Your task to perform on an android device: turn pop-ups off in chrome Image 0: 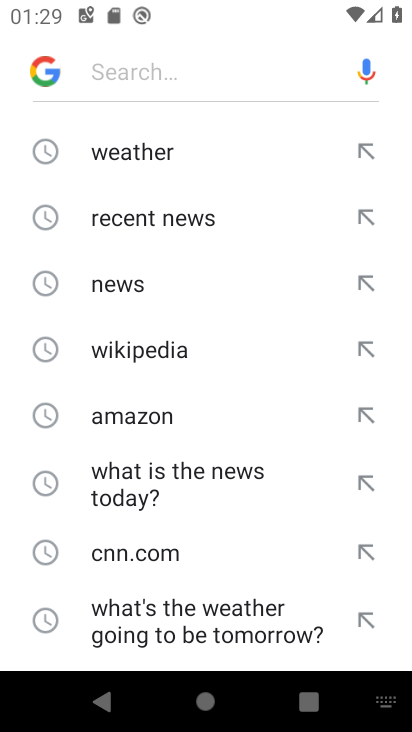
Step 0: press home button
Your task to perform on an android device: turn pop-ups off in chrome Image 1: 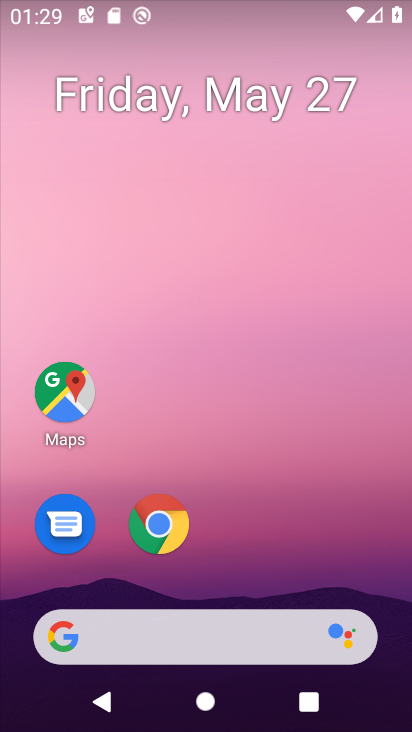
Step 1: click (169, 523)
Your task to perform on an android device: turn pop-ups off in chrome Image 2: 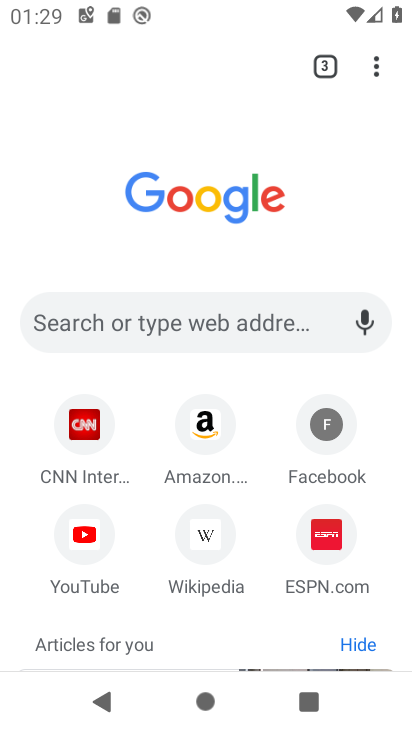
Step 2: click (376, 65)
Your task to perform on an android device: turn pop-ups off in chrome Image 3: 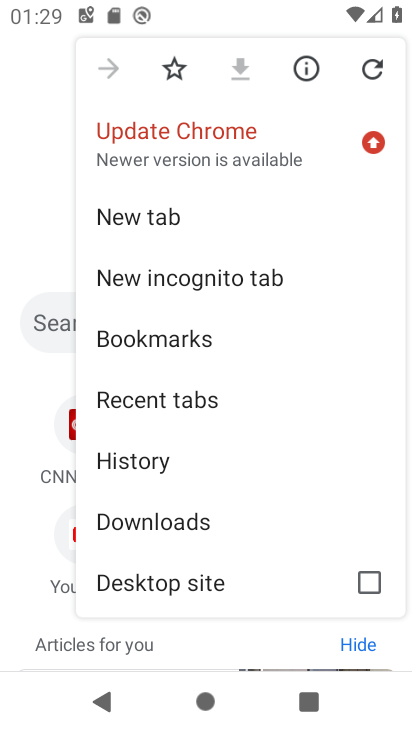
Step 3: drag from (264, 469) to (275, 208)
Your task to perform on an android device: turn pop-ups off in chrome Image 4: 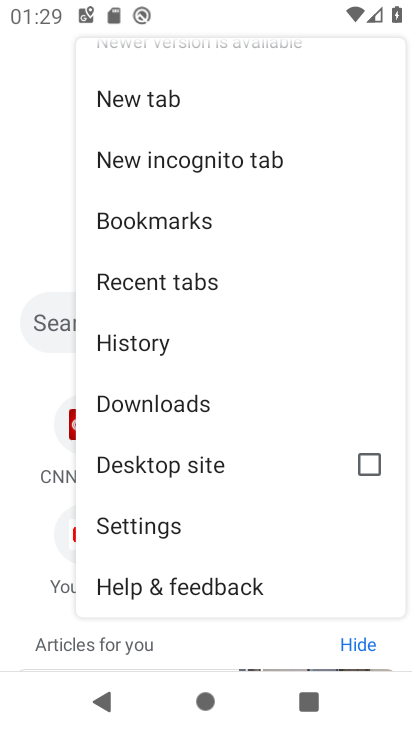
Step 4: click (153, 517)
Your task to perform on an android device: turn pop-ups off in chrome Image 5: 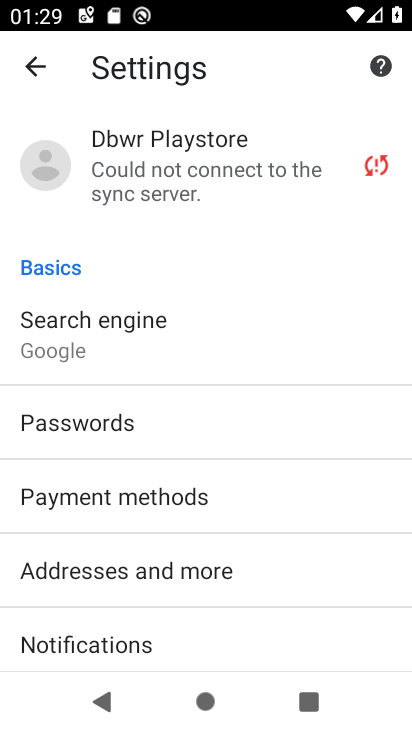
Step 5: drag from (276, 543) to (267, 230)
Your task to perform on an android device: turn pop-ups off in chrome Image 6: 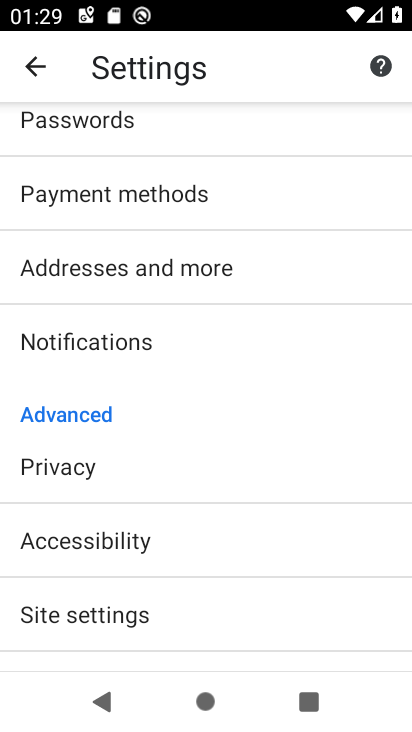
Step 6: click (202, 602)
Your task to perform on an android device: turn pop-ups off in chrome Image 7: 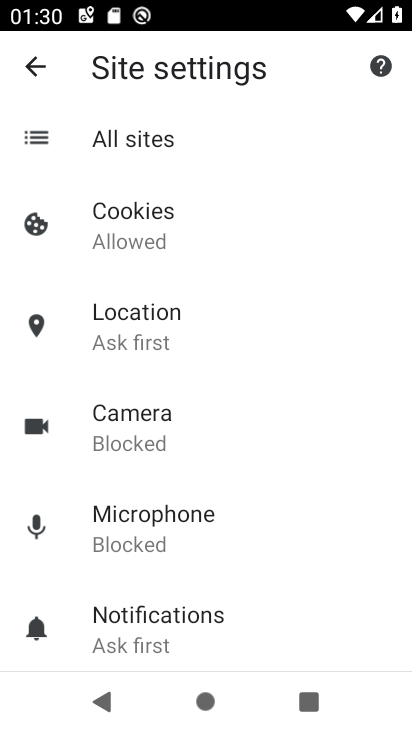
Step 7: drag from (271, 492) to (292, 210)
Your task to perform on an android device: turn pop-ups off in chrome Image 8: 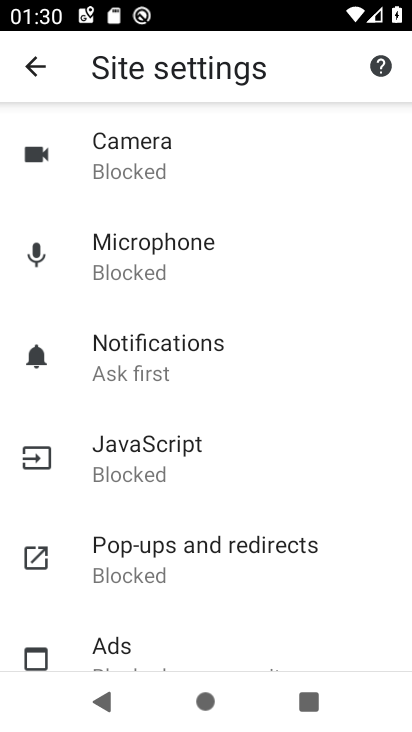
Step 8: click (237, 551)
Your task to perform on an android device: turn pop-ups off in chrome Image 9: 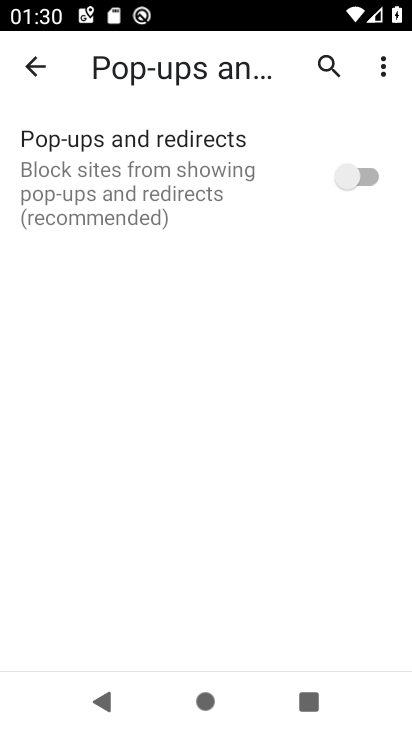
Step 9: task complete